Your task to perform on an android device: find photos in the google photos app Image 0: 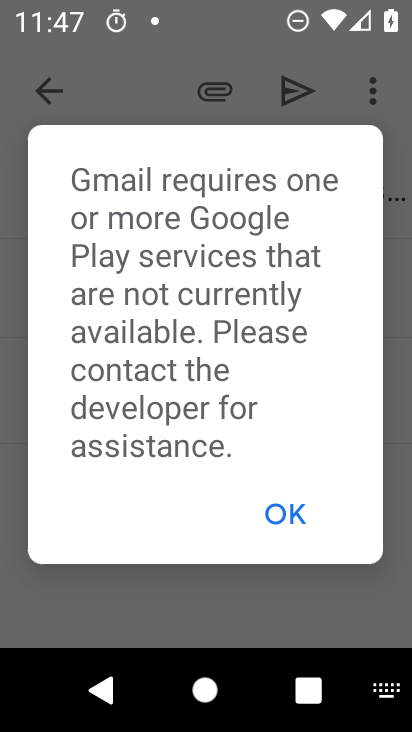
Step 0: press back button
Your task to perform on an android device: find photos in the google photos app Image 1: 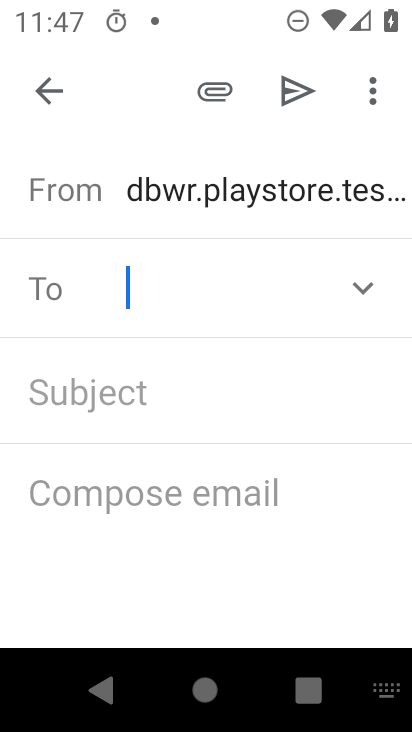
Step 1: press back button
Your task to perform on an android device: find photos in the google photos app Image 2: 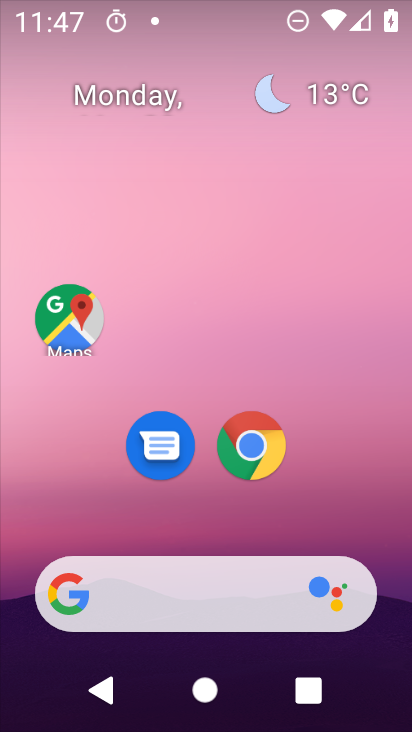
Step 2: drag from (173, 529) to (315, 30)
Your task to perform on an android device: find photos in the google photos app Image 3: 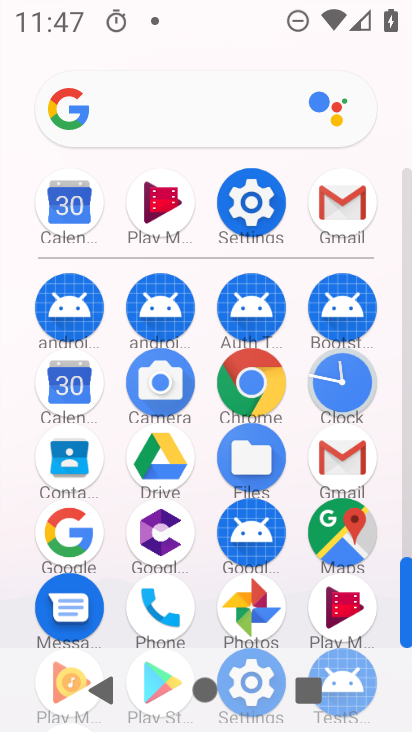
Step 3: click (247, 589)
Your task to perform on an android device: find photos in the google photos app Image 4: 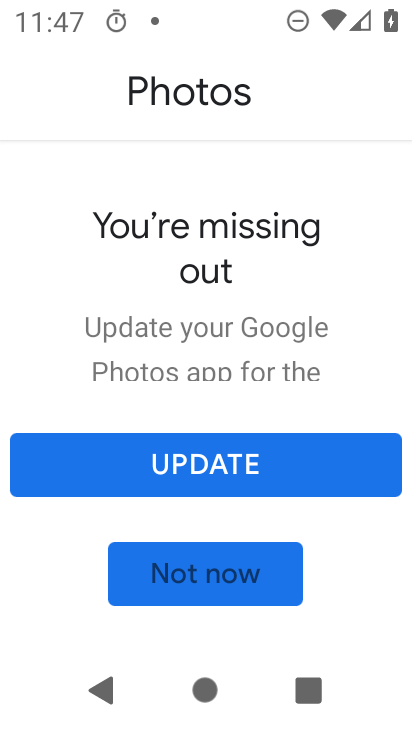
Step 4: click (200, 582)
Your task to perform on an android device: find photos in the google photos app Image 5: 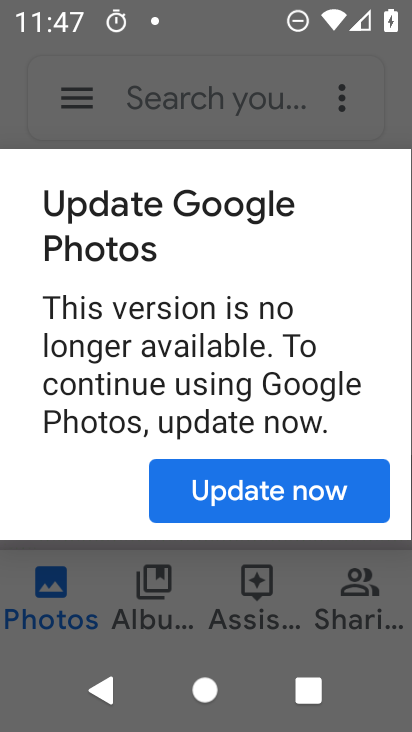
Step 5: click (241, 487)
Your task to perform on an android device: find photos in the google photos app Image 6: 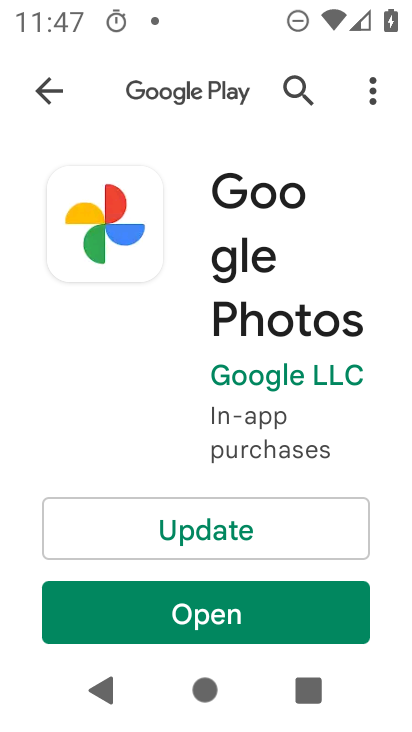
Step 6: click (207, 629)
Your task to perform on an android device: find photos in the google photos app Image 7: 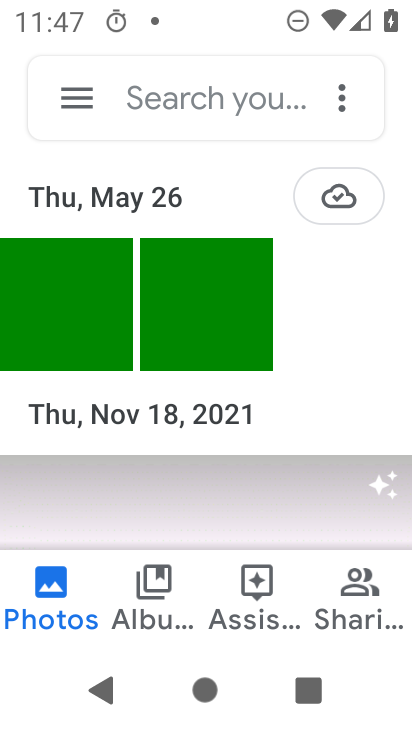
Step 7: task complete